Your task to perform on an android device: turn notification dots on Image 0: 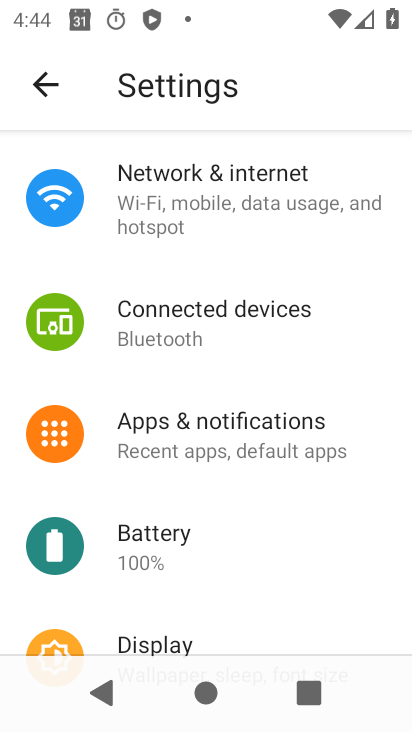
Step 0: click (326, 425)
Your task to perform on an android device: turn notification dots on Image 1: 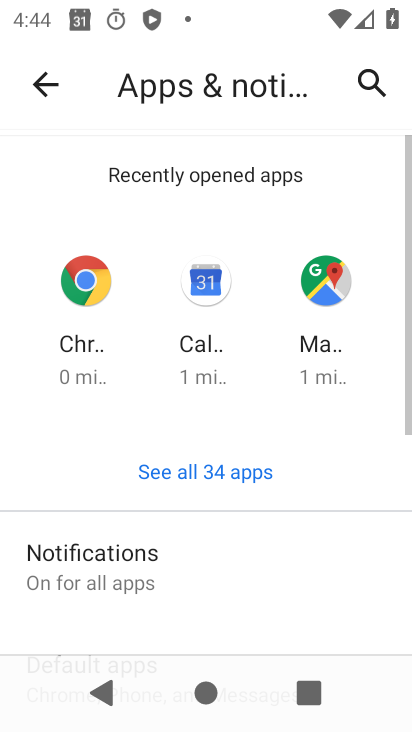
Step 1: click (300, 545)
Your task to perform on an android device: turn notification dots on Image 2: 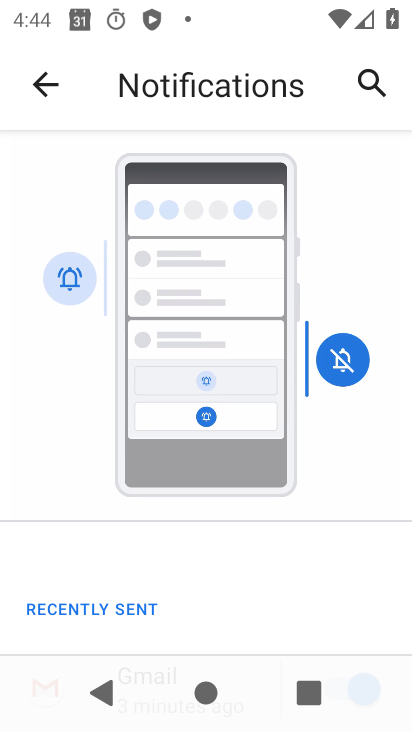
Step 2: drag from (265, 564) to (204, 56)
Your task to perform on an android device: turn notification dots on Image 3: 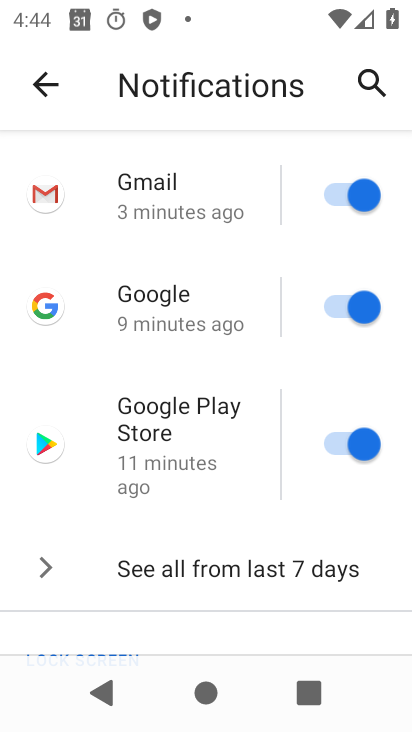
Step 3: drag from (257, 622) to (233, 177)
Your task to perform on an android device: turn notification dots on Image 4: 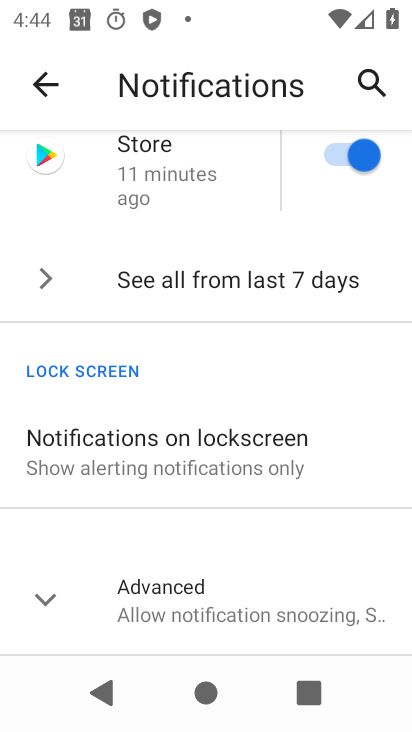
Step 4: click (294, 614)
Your task to perform on an android device: turn notification dots on Image 5: 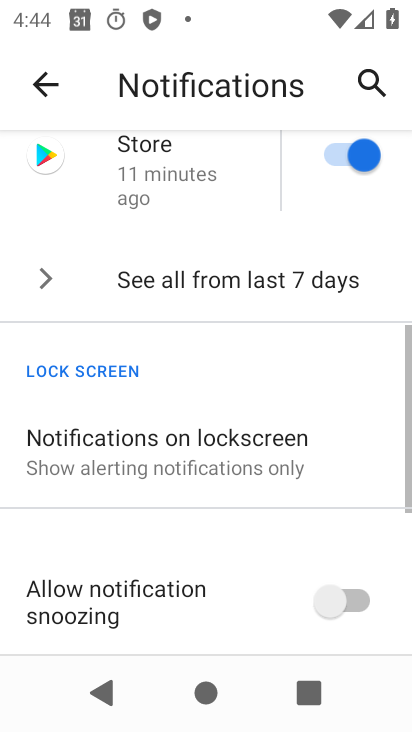
Step 5: task complete